Your task to perform on an android device: Check the news Image 0: 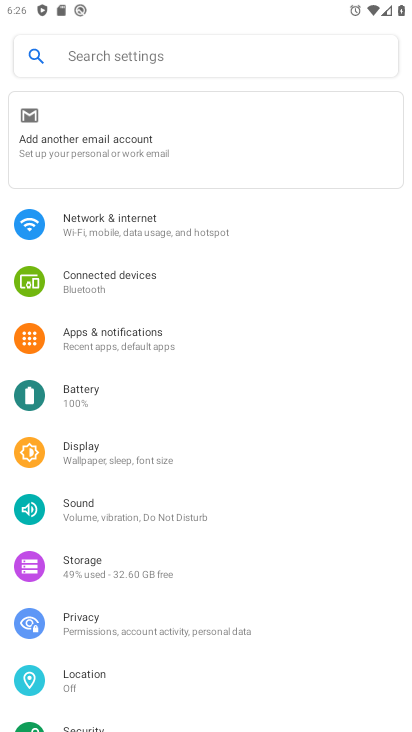
Step 0: press home button
Your task to perform on an android device: Check the news Image 1: 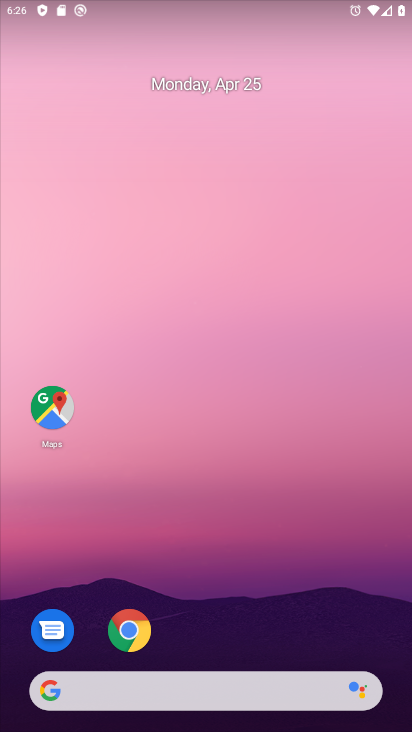
Step 1: drag from (258, 580) to (198, 53)
Your task to perform on an android device: Check the news Image 2: 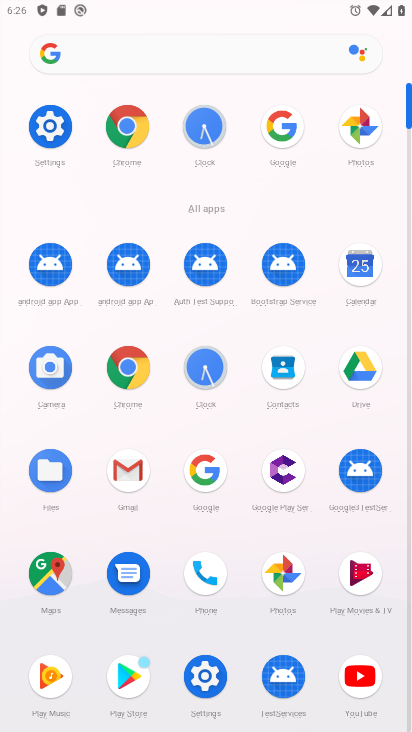
Step 2: click (204, 466)
Your task to perform on an android device: Check the news Image 3: 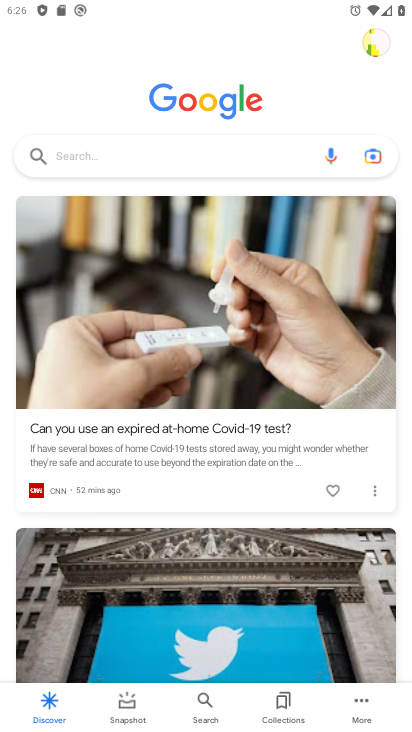
Step 3: task complete